Your task to perform on an android device: Open location settings Image 0: 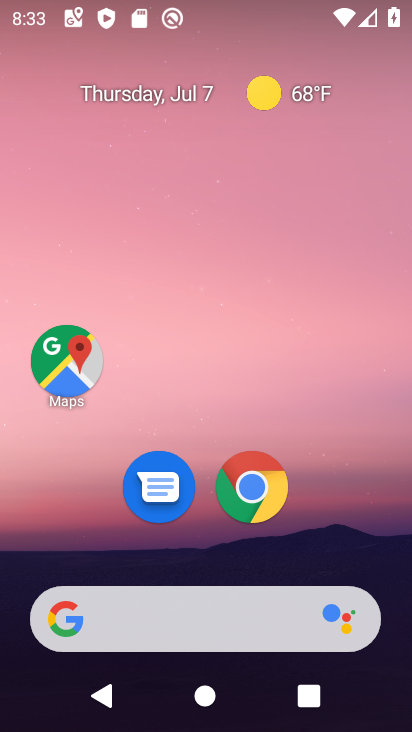
Step 0: drag from (192, 578) to (406, 230)
Your task to perform on an android device: Open location settings Image 1: 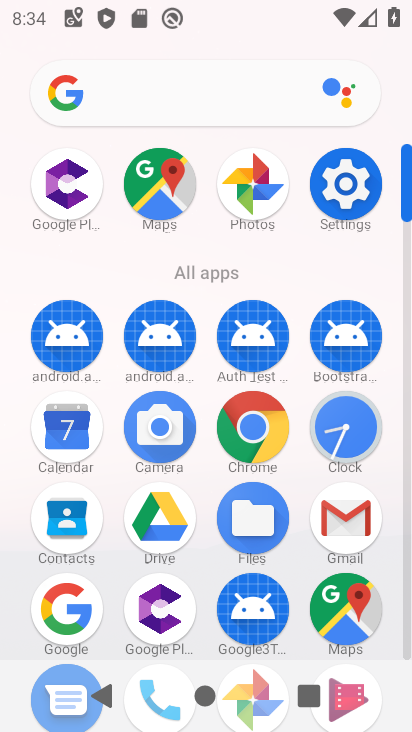
Step 1: click (345, 191)
Your task to perform on an android device: Open location settings Image 2: 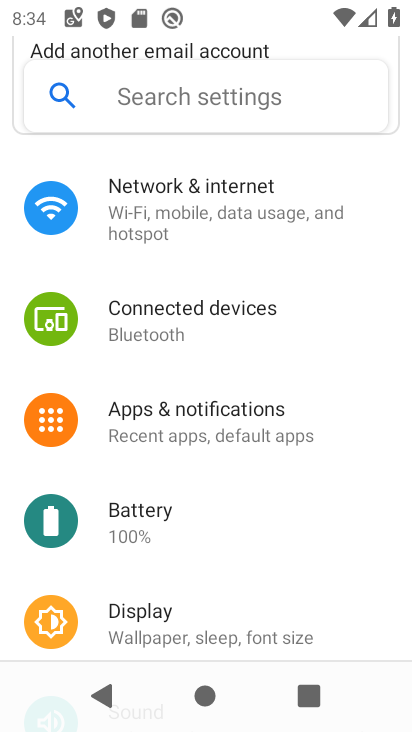
Step 2: drag from (220, 537) to (218, 74)
Your task to perform on an android device: Open location settings Image 3: 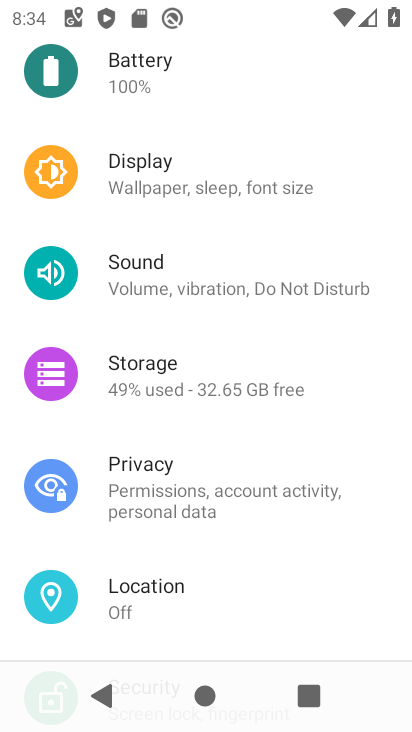
Step 3: click (166, 587)
Your task to perform on an android device: Open location settings Image 4: 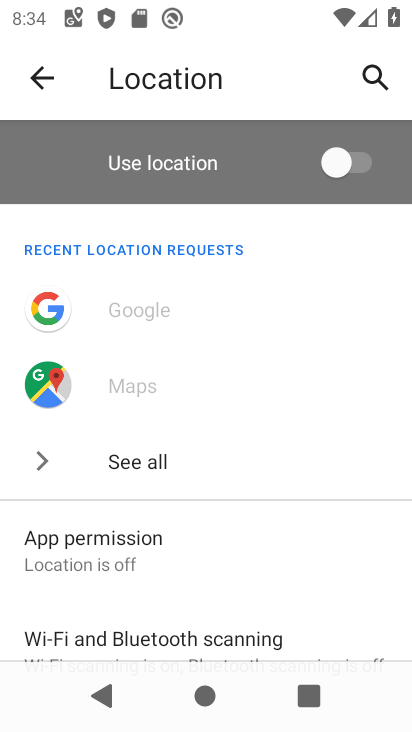
Step 4: task complete